Your task to perform on an android device: Search for seafood restaurants on Google Maps Image 0: 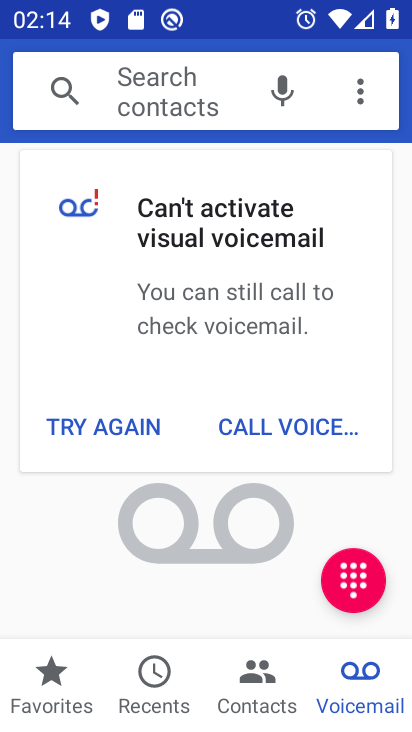
Step 0: press home button
Your task to perform on an android device: Search for seafood restaurants on Google Maps Image 1: 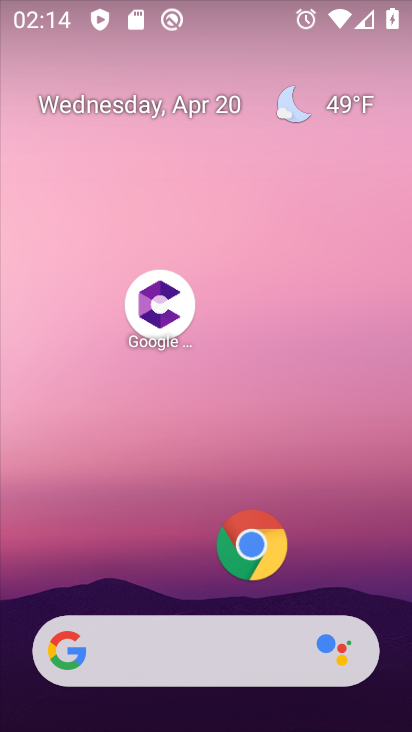
Step 1: drag from (133, 535) to (244, 64)
Your task to perform on an android device: Search for seafood restaurants on Google Maps Image 2: 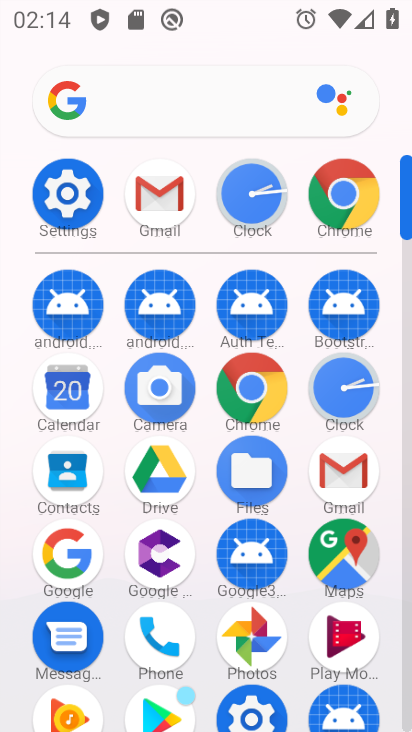
Step 2: click (342, 561)
Your task to perform on an android device: Search for seafood restaurants on Google Maps Image 3: 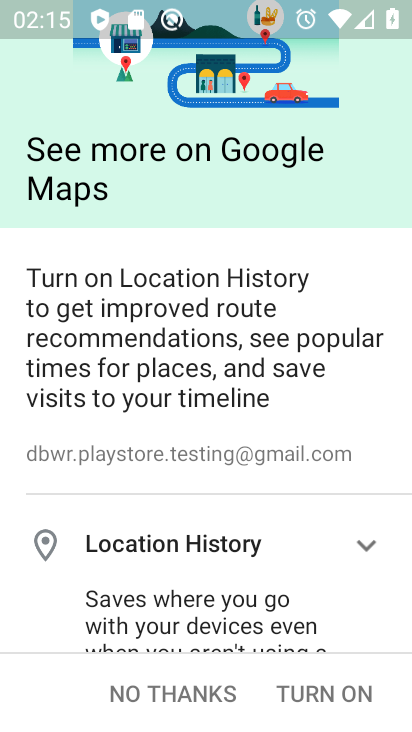
Step 3: click (175, 695)
Your task to perform on an android device: Search for seafood restaurants on Google Maps Image 4: 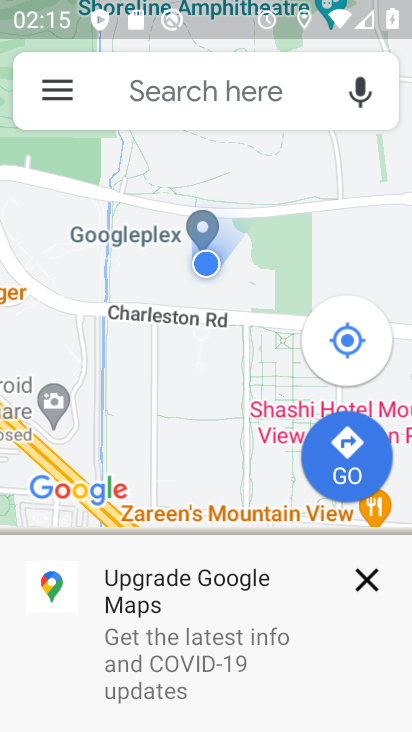
Step 4: click (193, 83)
Your task to perform on an android device: Search for seafood restaurants on Google Maps Image 5: 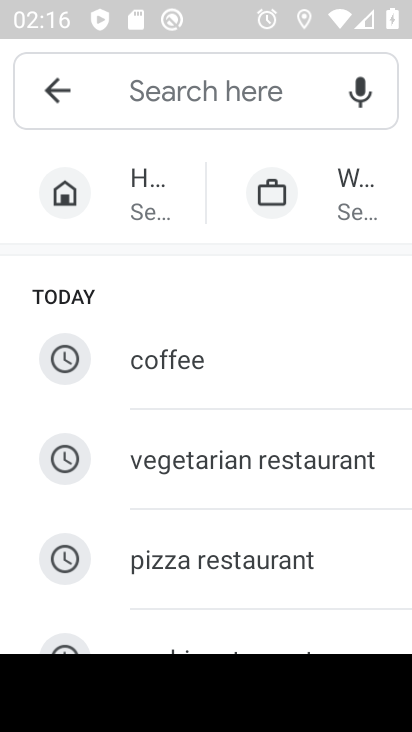
Step 5: type "seafood restaurants"
Your task to perform on an android device: Search for seafood restaurants on Google Maps Image 6: 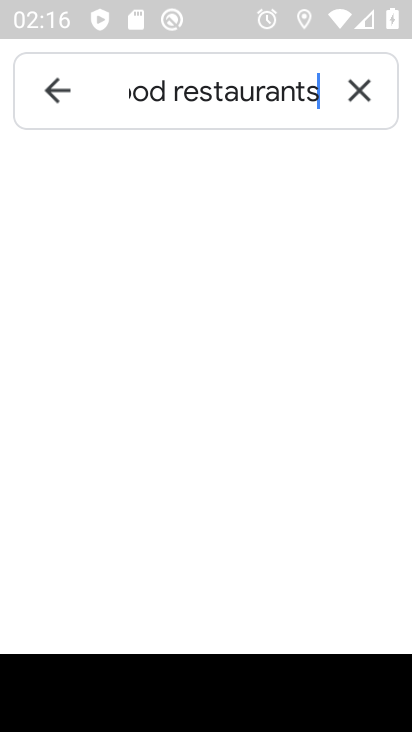
Step 6: type ""
Your task to perform on an android device: Search for seafood restaurants on Google Maps Image 7: 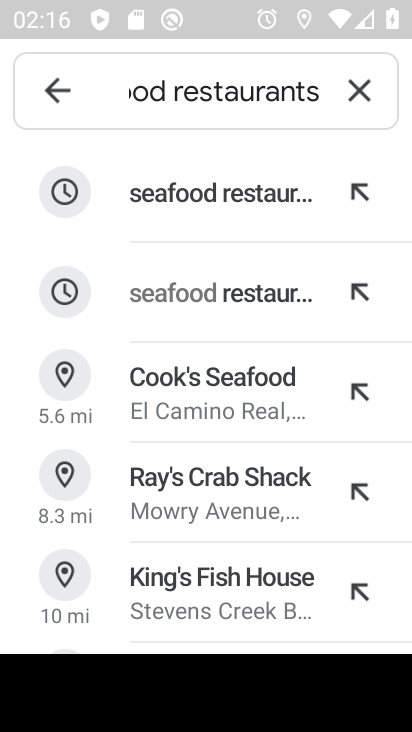
Step 7: click (207, 200)
Your task to perform on an android device: Search for seafood restaurants on Google Maps Image 8: 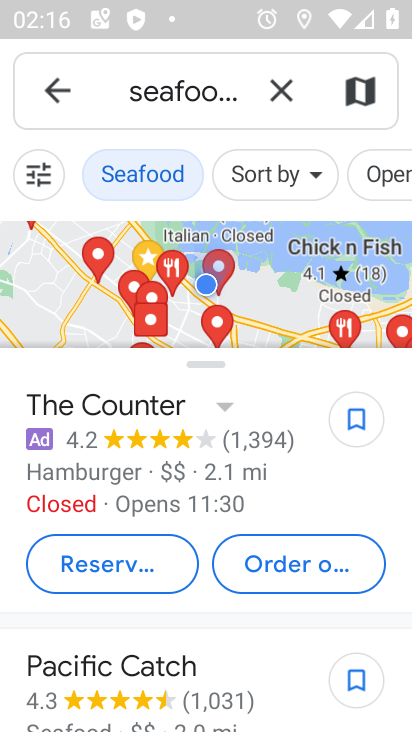
Step 8: task complete